Your task to perform on an android device: Open Google Image 0: 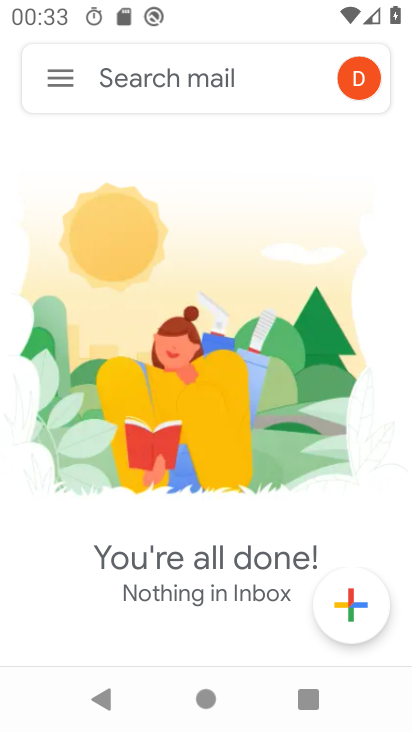
Step 0: press home button
Your task to perform on an android device: Open Google Image 1: 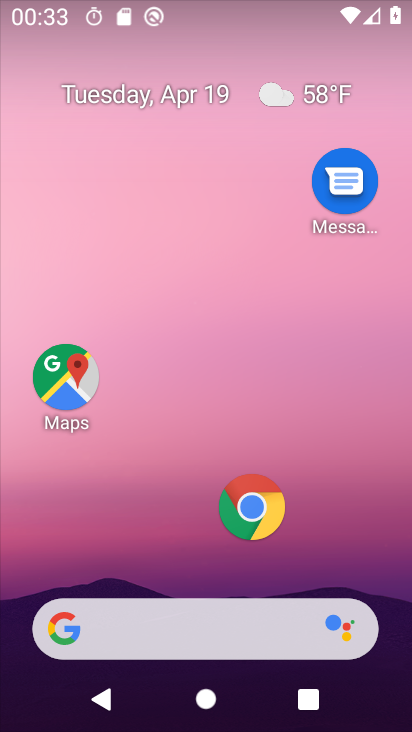
Step 1: drag from (183, 568) to (268, 3)
Your task to perform on an android device: Open Google Image 2: 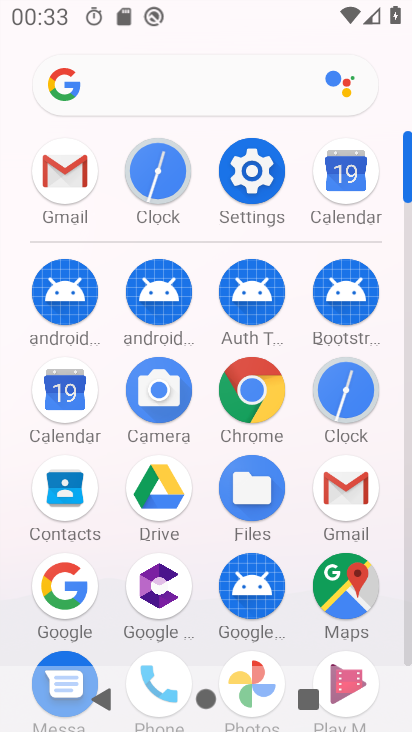
Step 2: click (61, 74)
Your task to perform on an android device: Open Google Image 3: 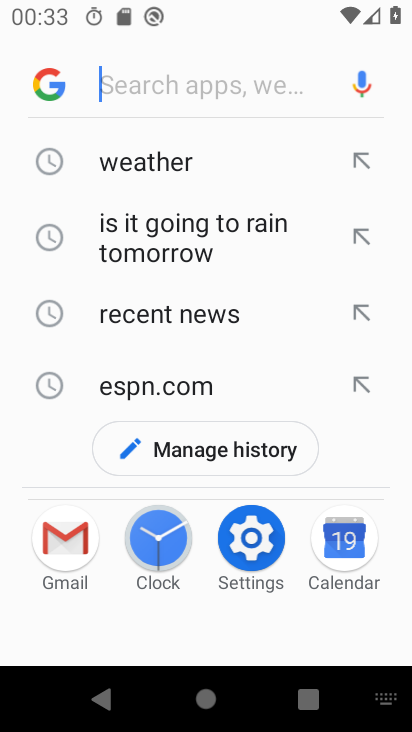
Step 3: click (58, 84)
Your task to perform on an android device: Open Google Image 4: 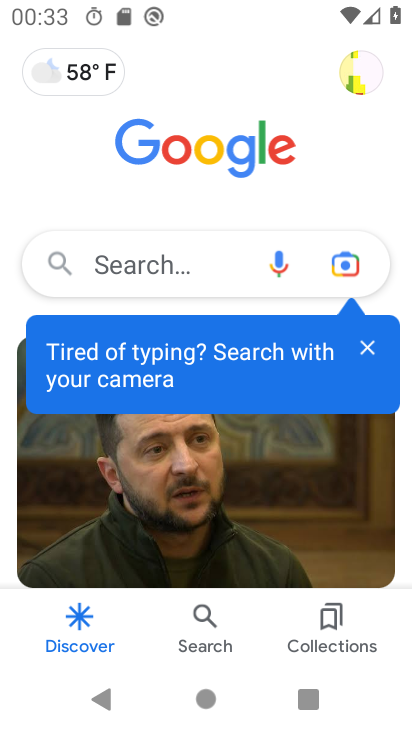
Step 4: task complete